Your task to perform on an android device: Open Amazon Image 0: 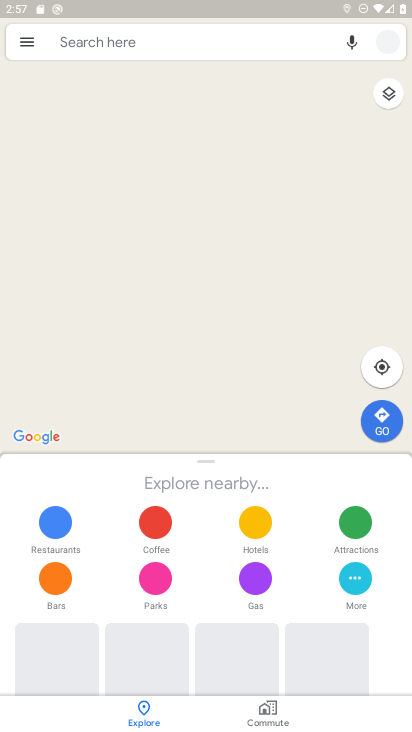
Step 0: press home button
Your task to perform on an android device: Open Amazon Image 1: 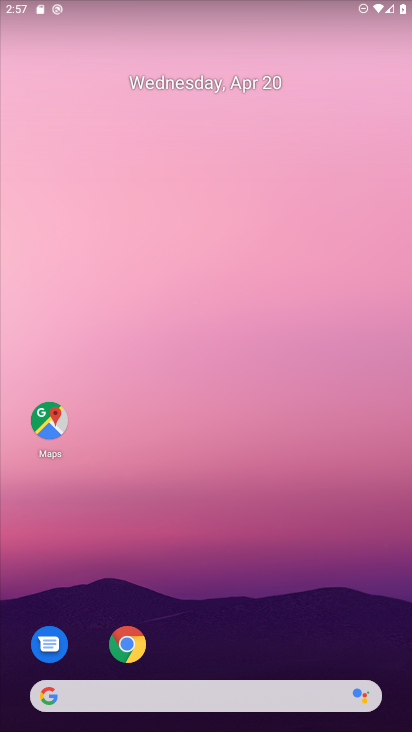
Step 1: click (123, 649)
Your task to perform on an android device: Open Amazon Image 2: 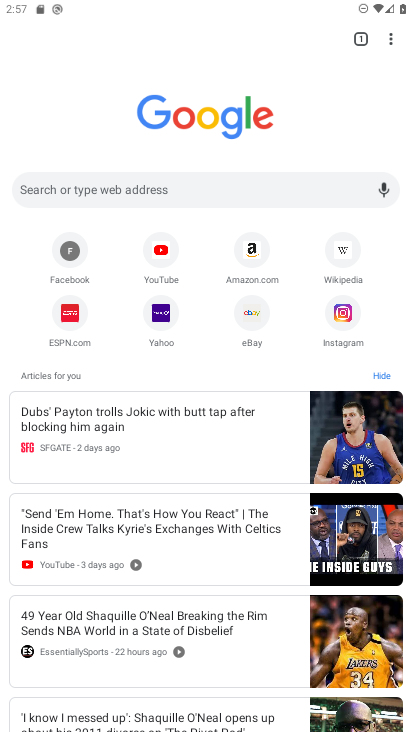
Step 2: click (262, 250)
Your task to perform on an android device: Open Amazon Image 3: 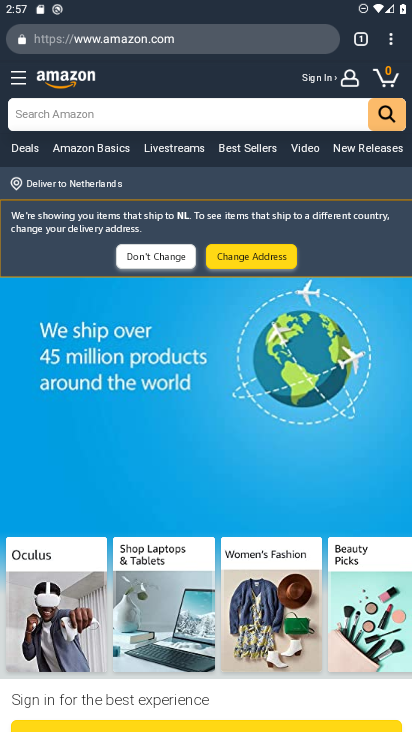
Step 3: task complete